Your task to perform on an android device: Go to settings Image 0: 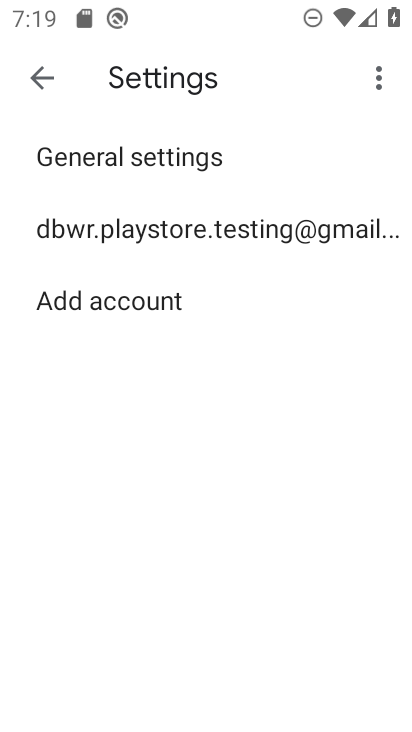
Step 0: press home button
Your task to perform on an android device: Go to settings Image 1: 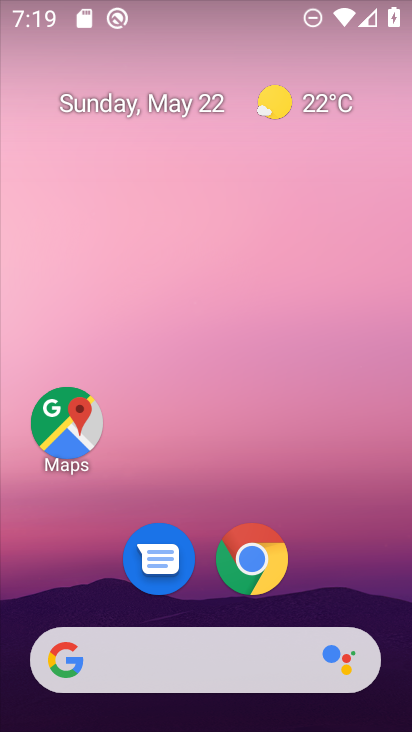
Step 1: drag from (237, 690) to (151, 60)
Your task to perform on an android device: Go to settings Image 2: 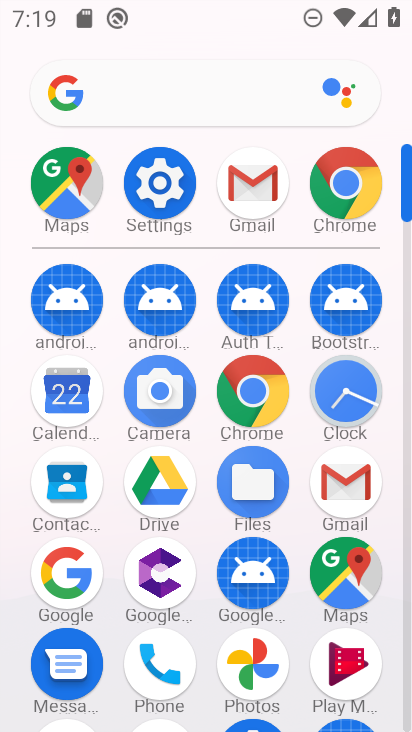
Step 2: click (160, 194)
Your task to perform on an android device: Go to settings Image 3: 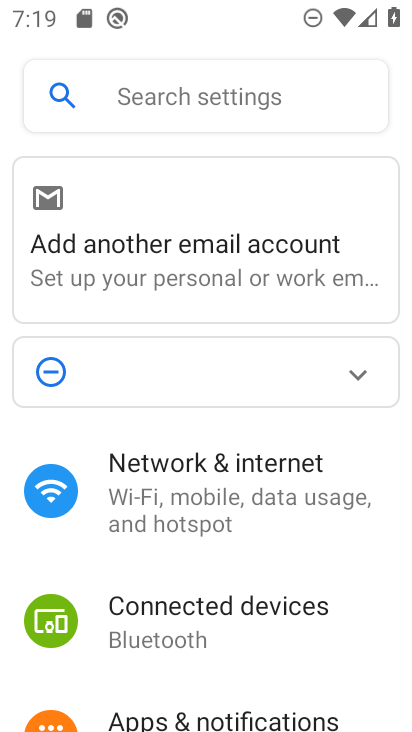
Step 3: task complete